Your task to perform on an android device: Show me popular videos on Youtube Image 0: 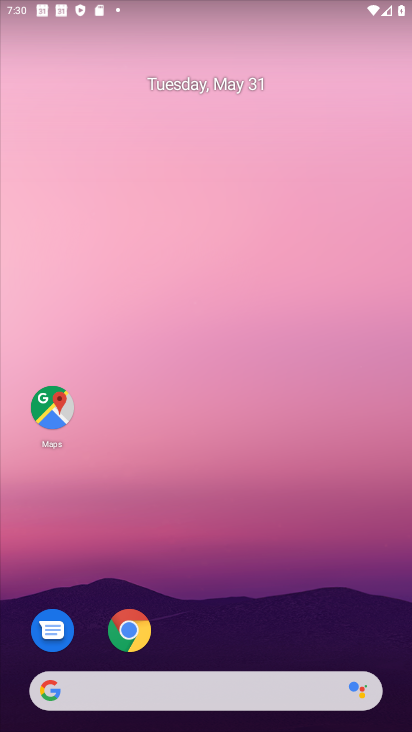
Step 0: drag from (280, 619) to (249, 207)
Your task to perform on an android device: Show me popular videos on Youtube Image 1: 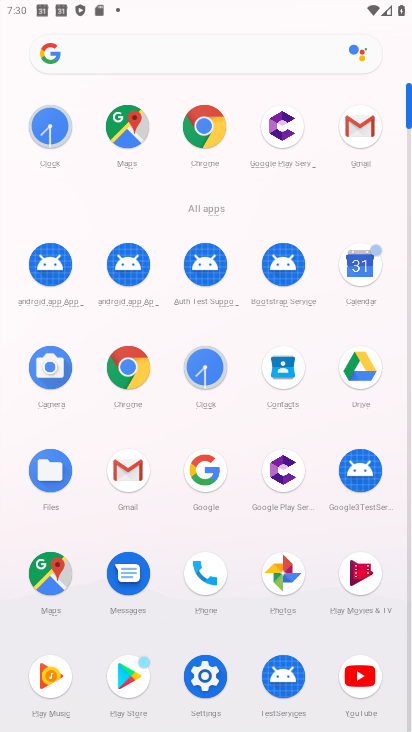
Step 1: click (361, 669)
Your task to perform on an android device: Show me popular videos on Youtube Image 2: 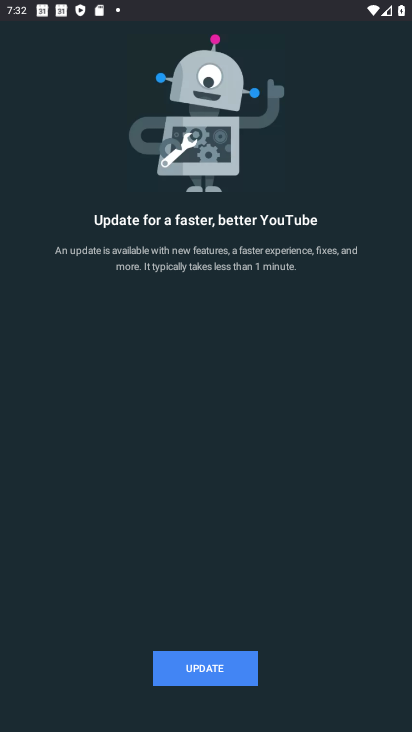
Step 2: task complete